Your task to perform on an android device: Search for vegetarian restaurants on Maps Image 0: 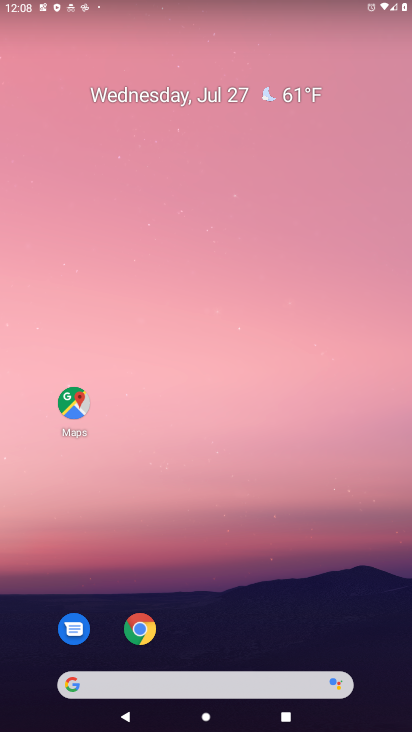
Step 0: click (86, 433)
Your task to perform on an android device: Search for vegetarian restaurants on Maps Image 1: 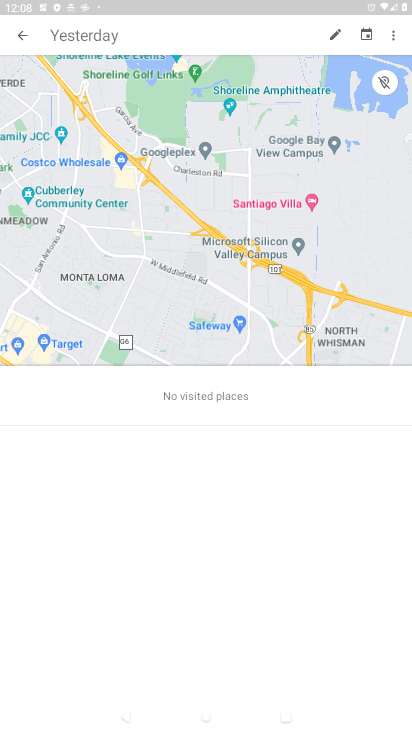
Step 1: click (16, 28)
Your task to perform on an android device: Search for vegetarian restaurants on Maps Image 2: 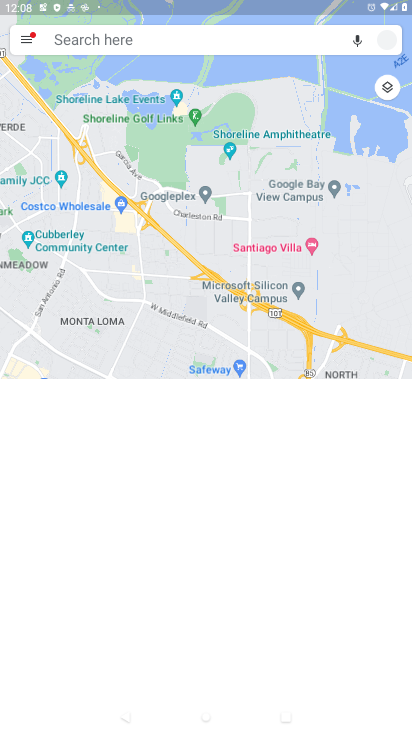
Step 2: click (101, 34)
Your task to perform on an android device: Search for vegetarian restaurants on Maps Image 3: 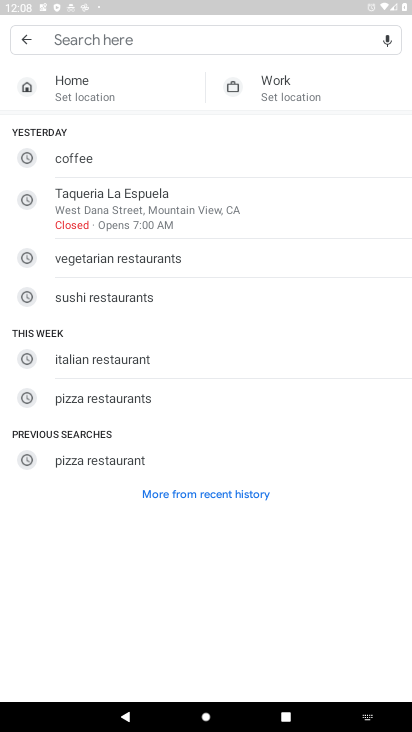
Step 3: type "v"
Your task to perform on an android device: Search for vegetarian restaurants on Maps Image 4: 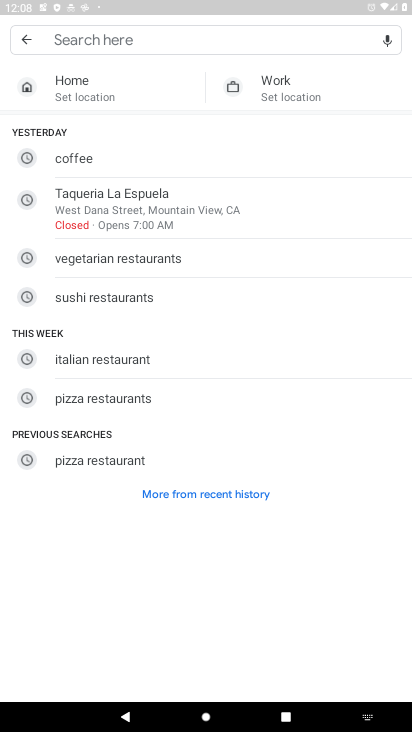
Step 4: click (159, 270)
Your task to perform on an android device: Search for vegetarian restaurants on Maps Image 5: 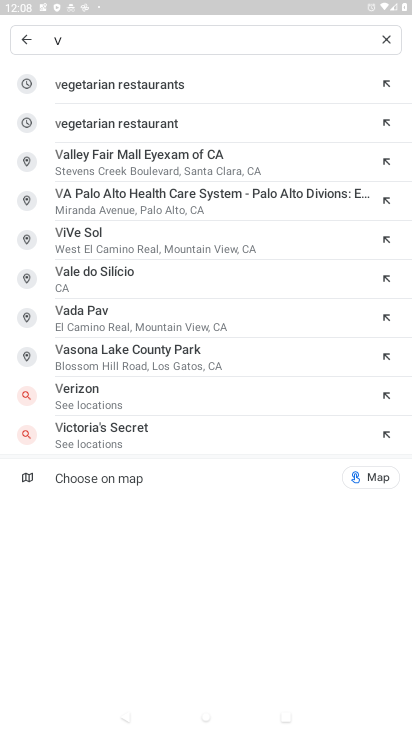
Step 5: click (172, 97)
Your task to perform on an android device: Search for vegetarian restaurants on Maps Image 6: 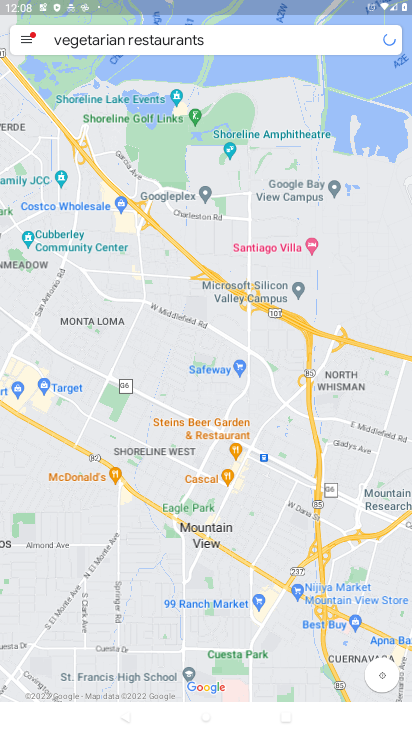
Step 6: task complete